Your task to perform on an android device: Find coffee shops on Maps Image 0: 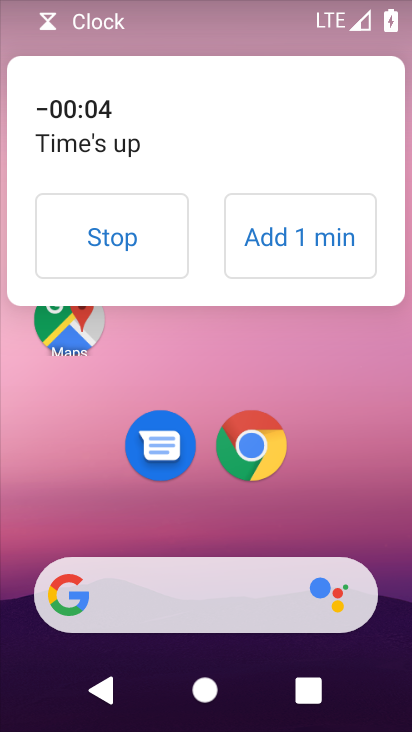
Step 0: click (150, 241)
Your task to perform on an android device: Find coffee shops on Maps Image 1: 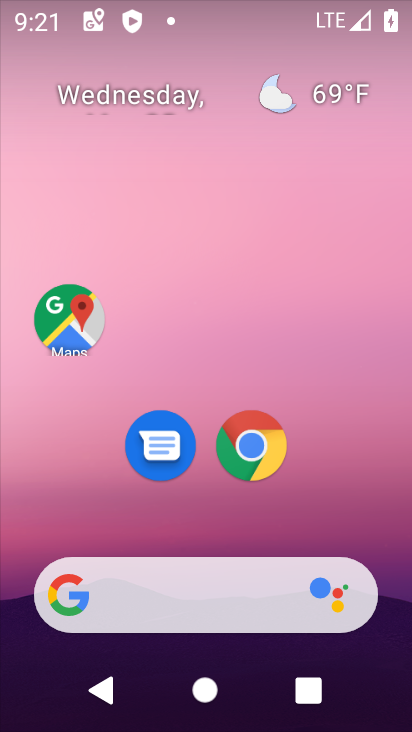
Step 1: press home button
Your task to perform on an android device: Find coffee shops on Maps Image 2: 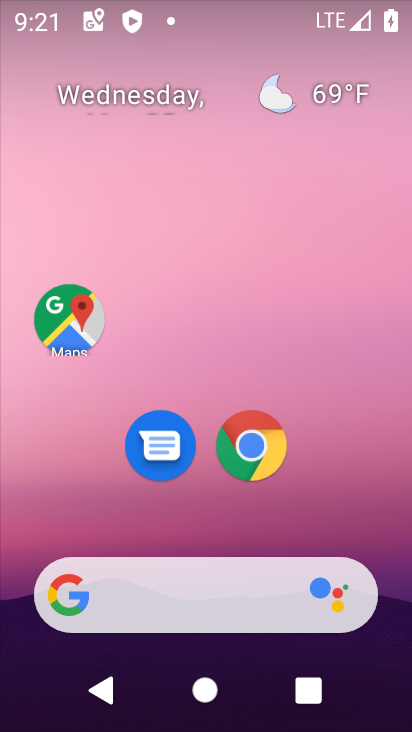
Step 2: click (70, 312)
Your task to perform on an android device: Find coffee shops on Maps Image 3: 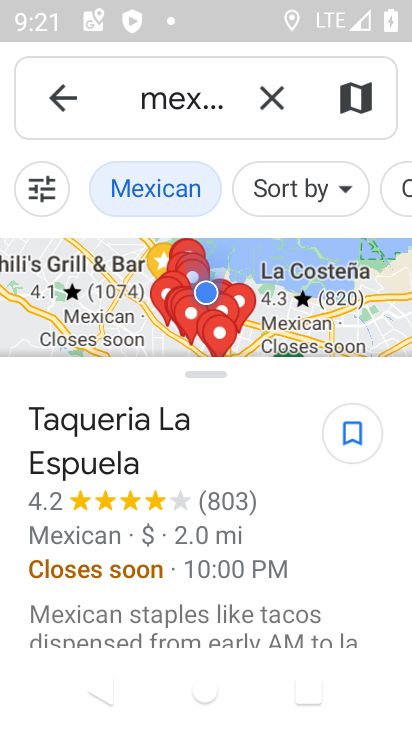
Step 3: click (269, 104)
Your task to perform on an android device: Find coffee shops on Maps Image 4: 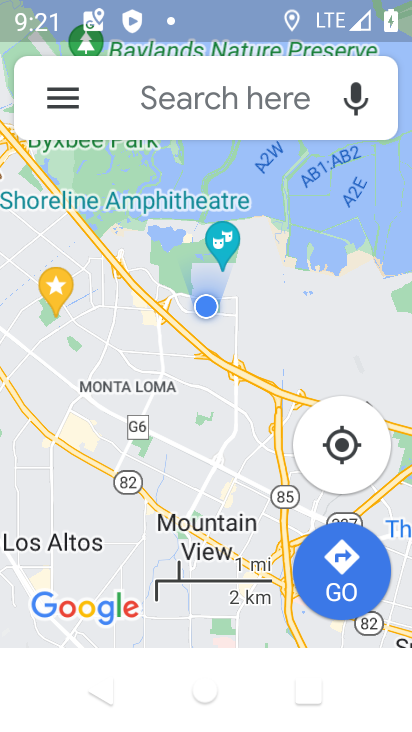
Step 4: click (244, 87)
Your task to perform on an android device: Find coffee shops on Maps Image 5: 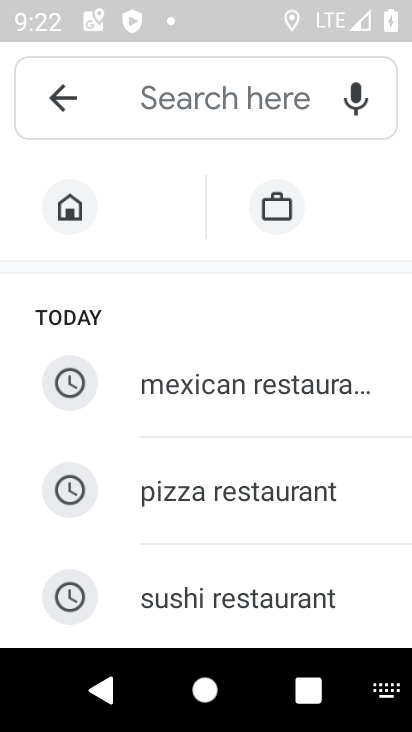
Step 5: type "coffee shops "
Your task to perform on an android device: Find coffee shops on Maps Image 6: 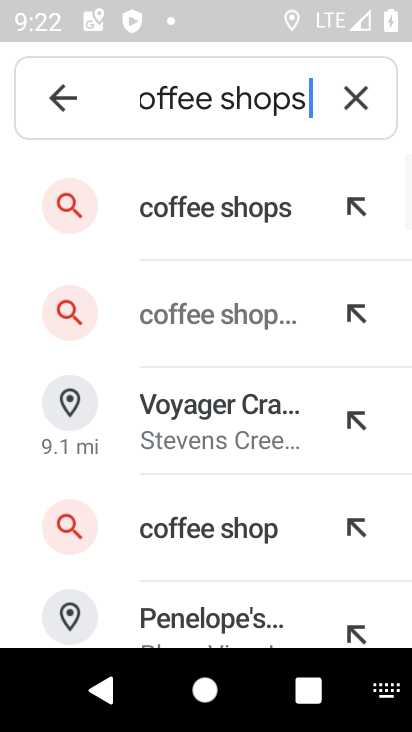
Step 6: click (246, 202)
Your task to perform on an android device: Find coffee shops on Maps Image 7: 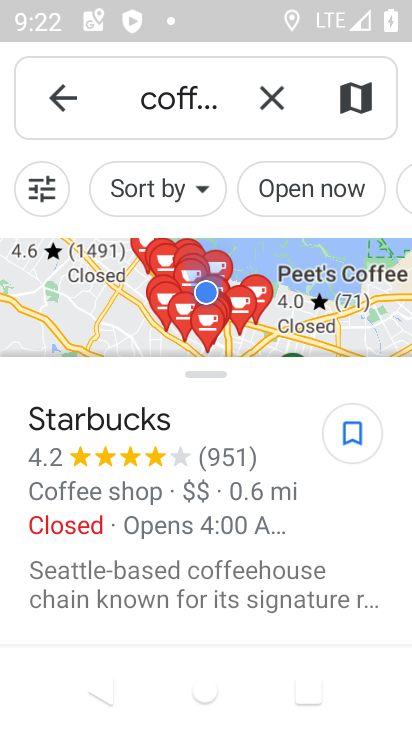
Step 7: task complete